Your task to perform on an android device: snooze an email in the gmail app Image 0: 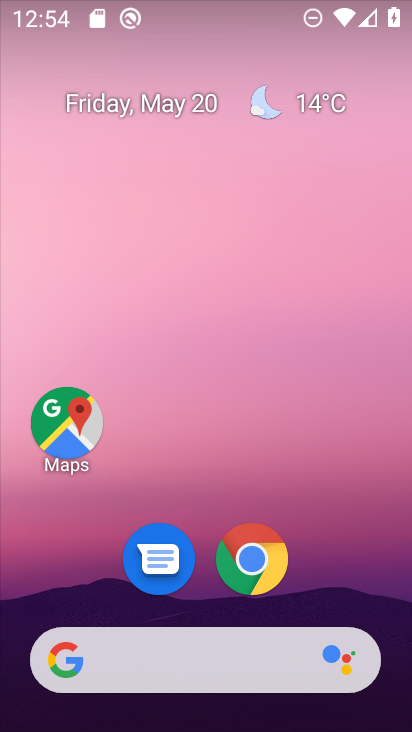
Step 0: click (368, 647)
Your task to perform on an android device: snooze an email in the gmail app Image 1: 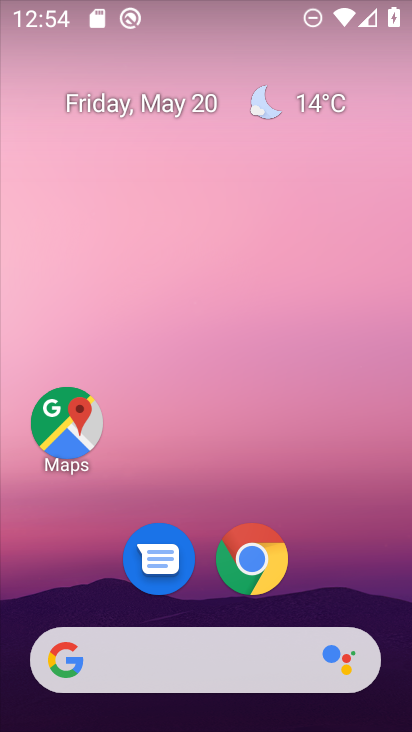
Step 1: drag from (332, 523) to (346, 359)
Your task to perform on an android device: snooze an email in the gmail app Image 2: 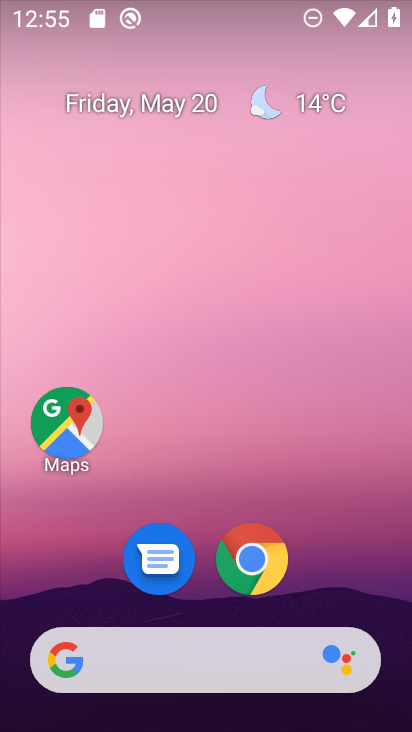
Step 2: drag from (300, 588) to (410, 567)
Your task to perform on an android device: snooze an email in the gmail app Image 3: 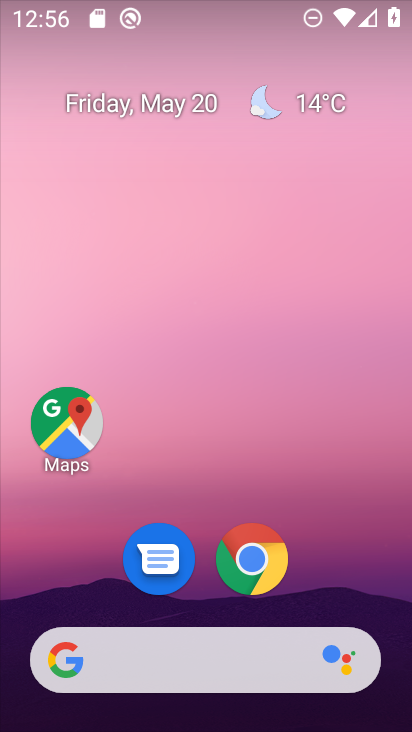
Step 3: drag from (341, 573) to (271, 72)
Your task to perform on an android device: snooze an email in the gmail app Image 4: 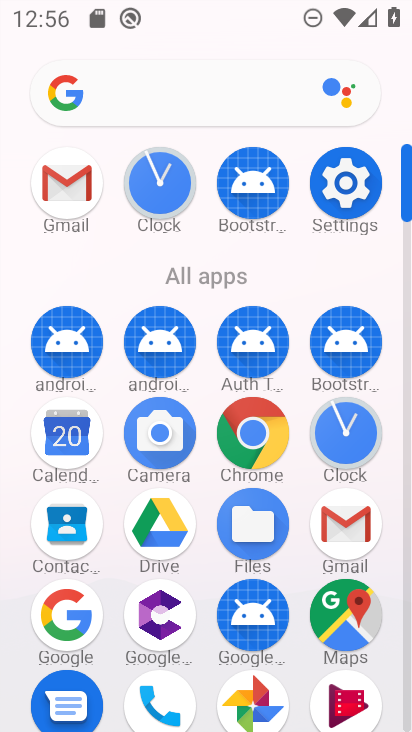
Step 4: click (342, 508)
Your task to perform on an android device: snooze an email in the gmail app Image 5: 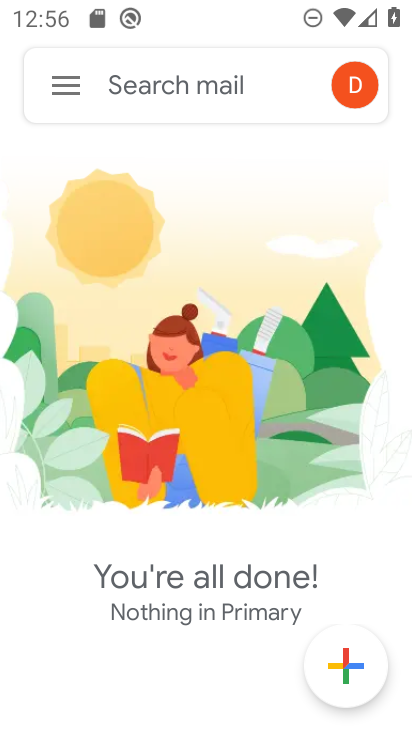
Step 5: task complete